Your task to perform on an android device: set the stopwatch Image 0: 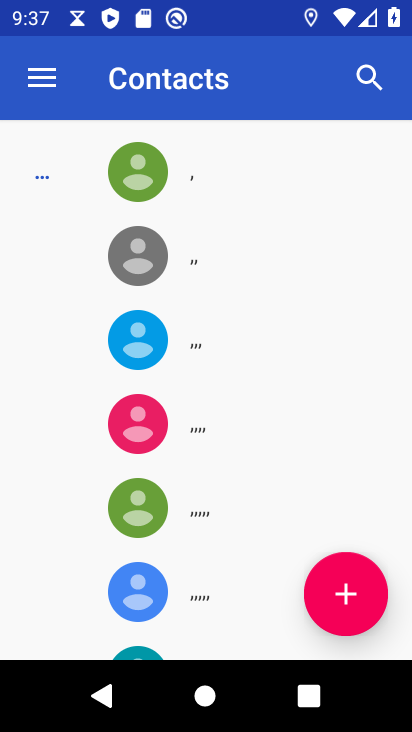
Step 0: press home button
Your task to perform on an android device: set the stopwatch Image 1: 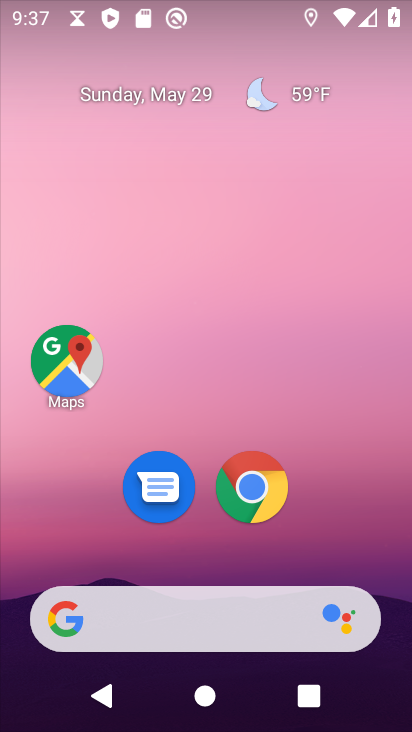
Step 1: drag from (307, 547) to (280, 45)
Your task to perform on an android device: set the stopwatch Image 2: 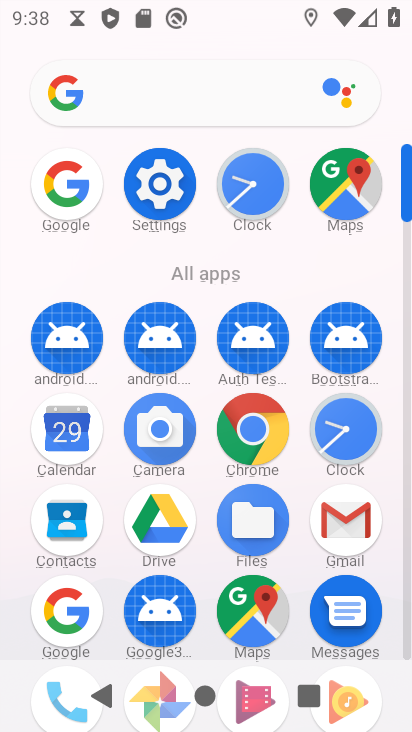
Step 2: click (254, 185)
Your task to perform on an android device: set the stopwatch Image 3: 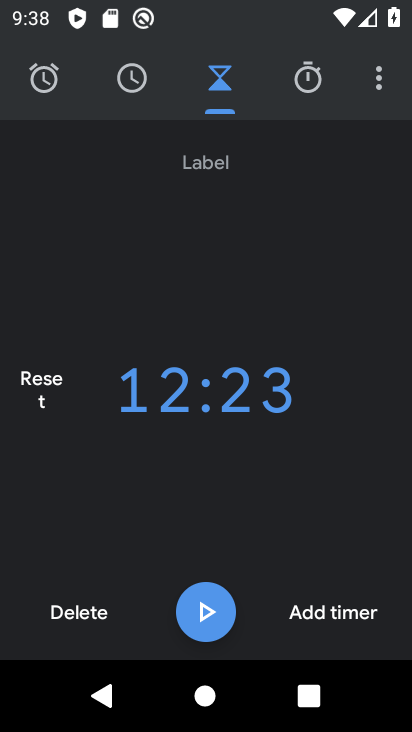
Step 3: click (307, 79)
Your task to perform on an android device: set the stopwatch Image 4: 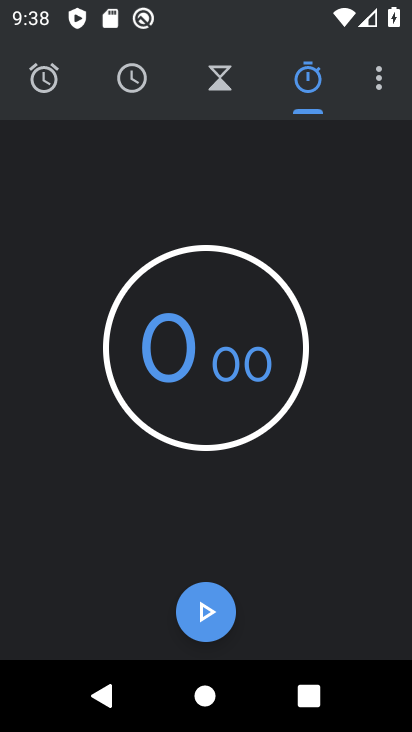
Step 4: click (205, 613)
Your task to perform on an android device: set the stopwatch Image 5: 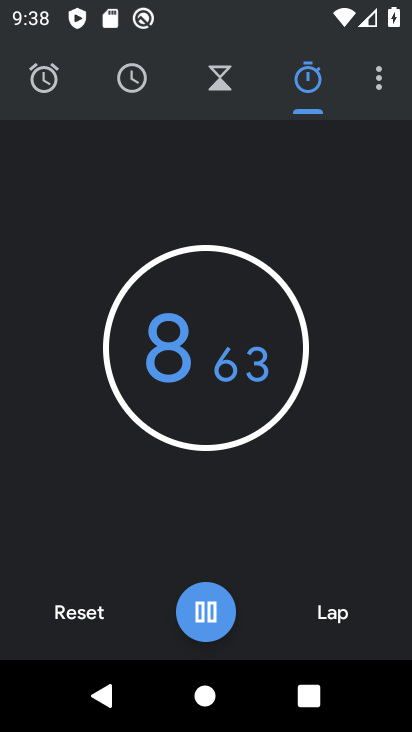
Step 5: click (205, 613)
Your task to perform on an android device: set the stopwatch Image 6: 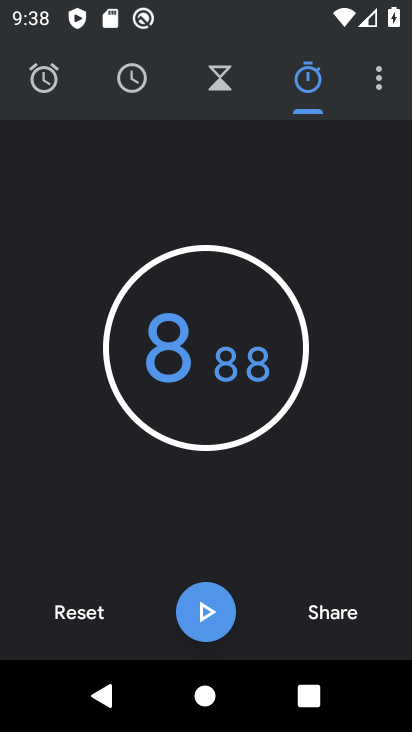
Step 6: task complete